Your task to perform on an android device: turn on sleep mode Image 0: 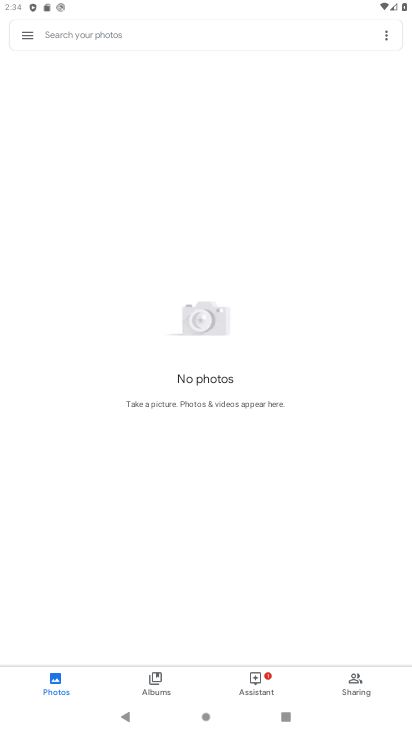
Step 0: press home button
Your task to perform on an android device: turn on sleep mode Image 1: 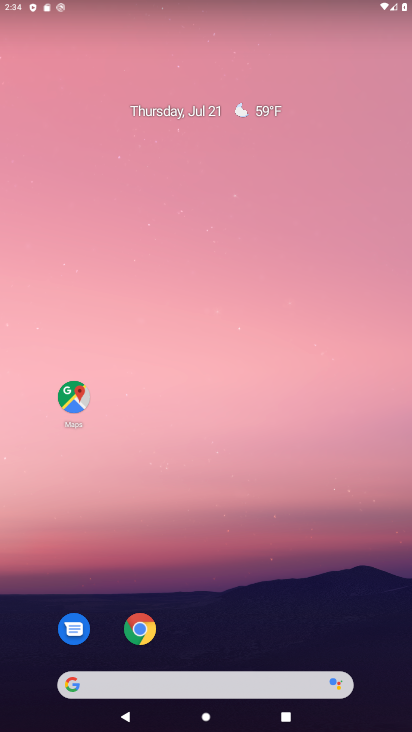
Step 1: drag from (233, 683) to (181, 122)
Your task to perform on an android device: turn on sleep mode Image 2: 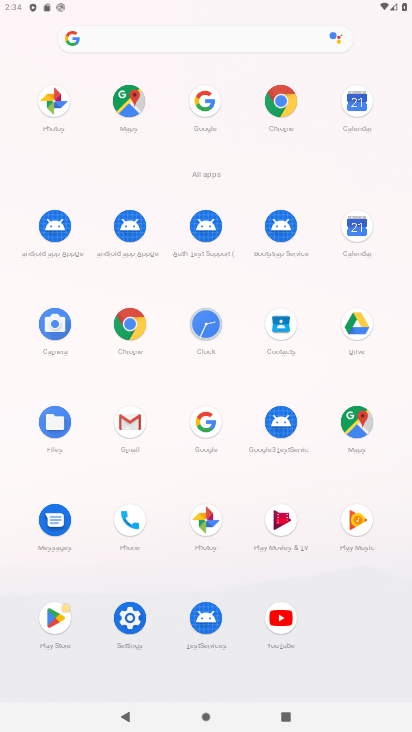
Step 2: click (127, 619)
Your task to perform on an android device: turn on sleep mode Image 3: 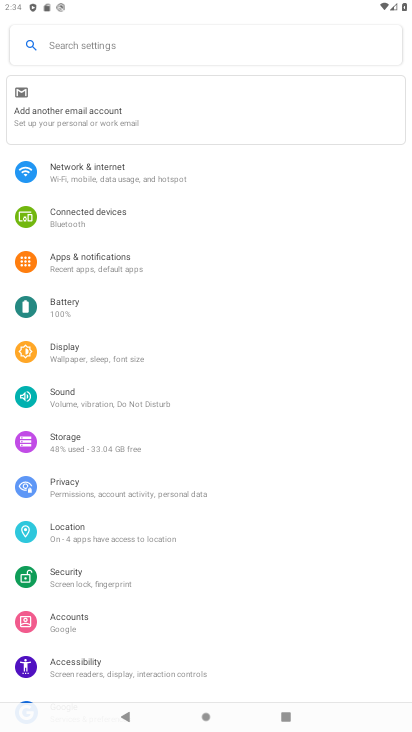
Step 3: click (88, 363)
Your task to perform on an android device: turn on sleep mode Image 4: 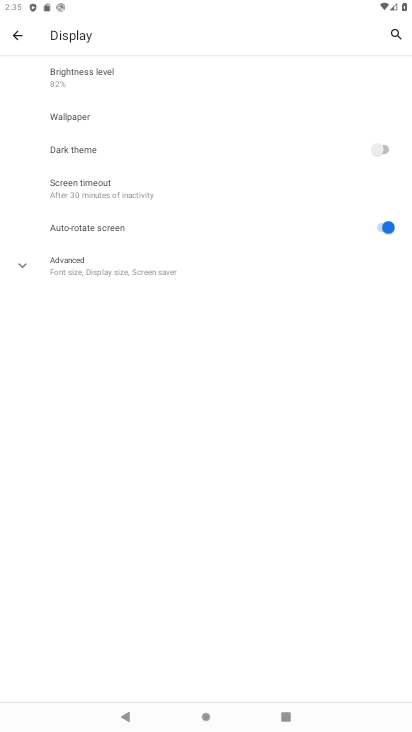
Step 4: task complete